Your task to perform on an android device: Search for Italian restaurants on Maps Image 0: 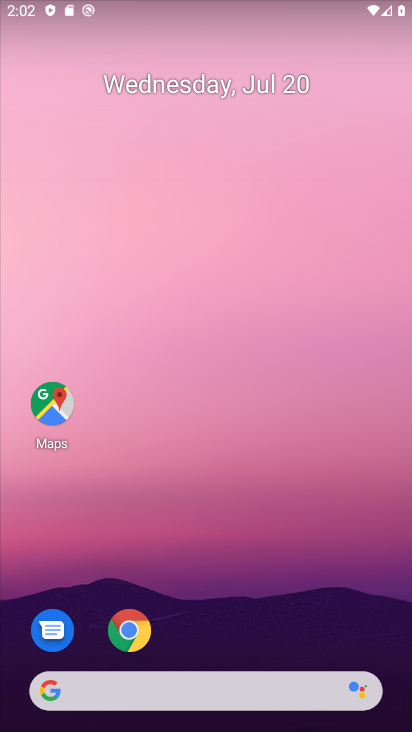
Step 0: drag from (356, 580) to (376, 50)
Your task to perform on an android device: Search for Italian restaurants on Maps Image 1: 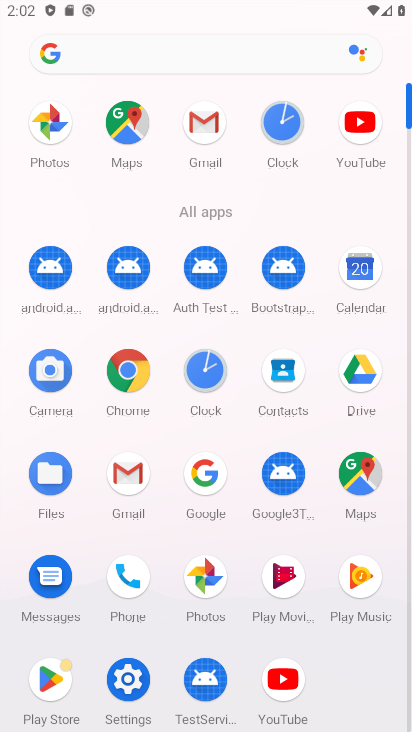
Step 1: click (363, 464)
Your task to perform on an android device: Search for Italian restaurants on Maps Image 2: 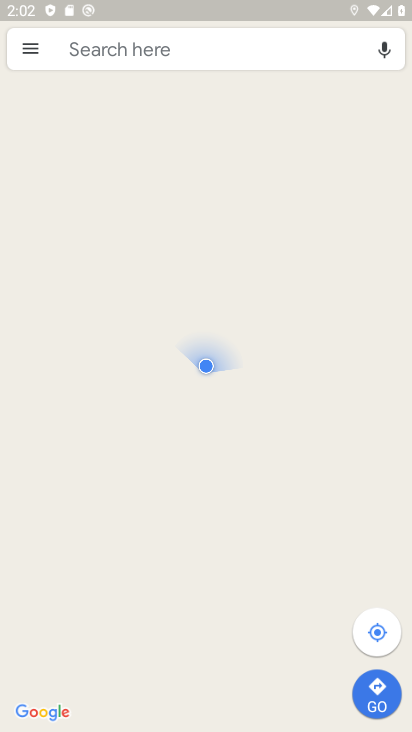
Step 2: click (181, 54)
Your task to perform on an android device: Search for Italian restaurants on Maps Image 3: 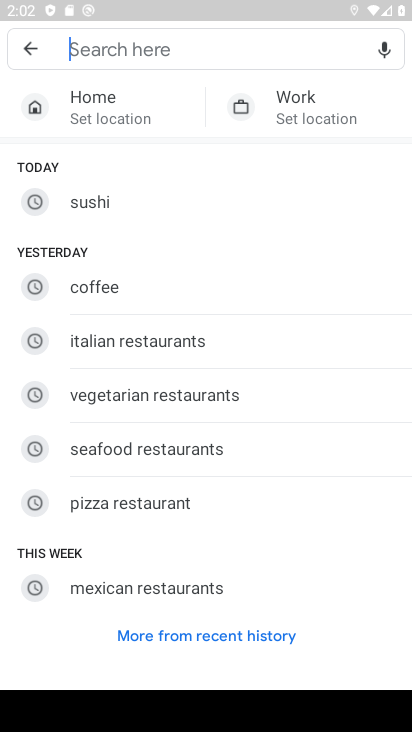
Step 3: type "italian restaurants"
Your task to perform on an android device: Search for Italian restaurants on Maps Image 4: 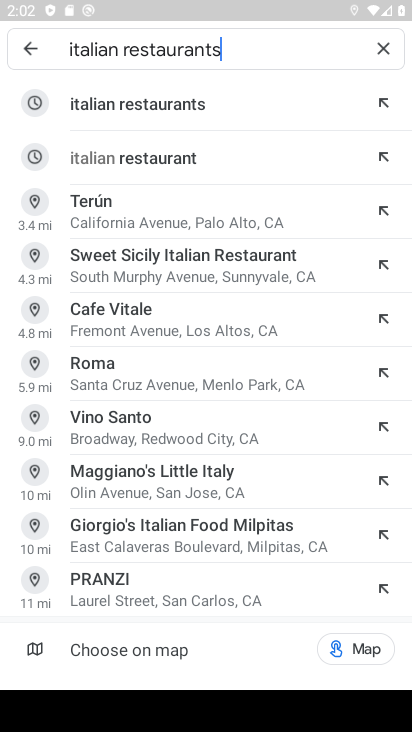
Step 4: click (245, 106)
Your task to perform on an android device: Search for Italian restaurants on Maps Image 5: 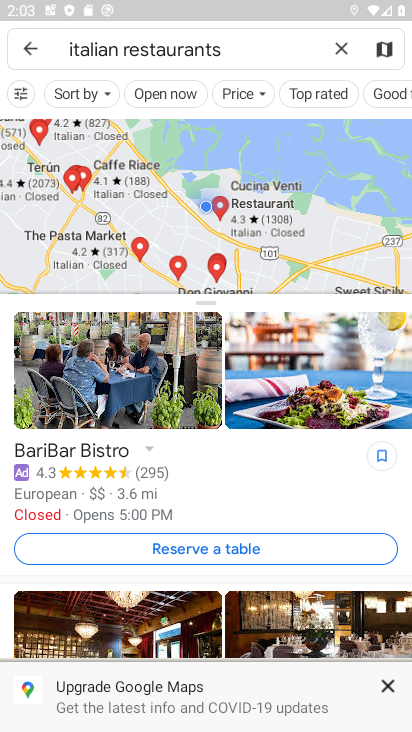
Step 5: task complete